Your task to perform on an android device: see sites visited before in the chrome app Image 0: 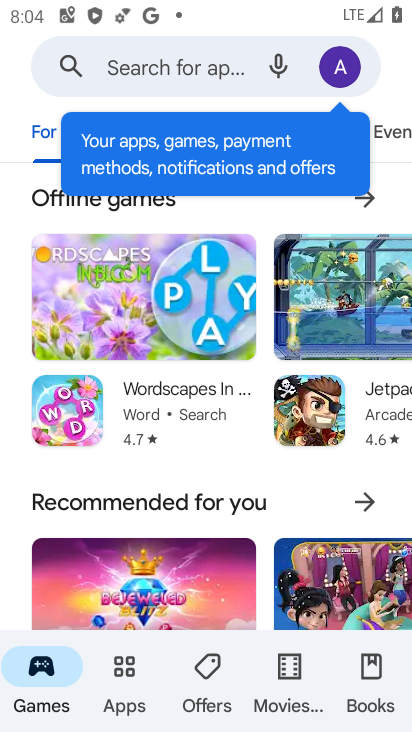
Step 0: press home button
Your task to perform on an android device: see sites visited before in the chrome app Image 1: 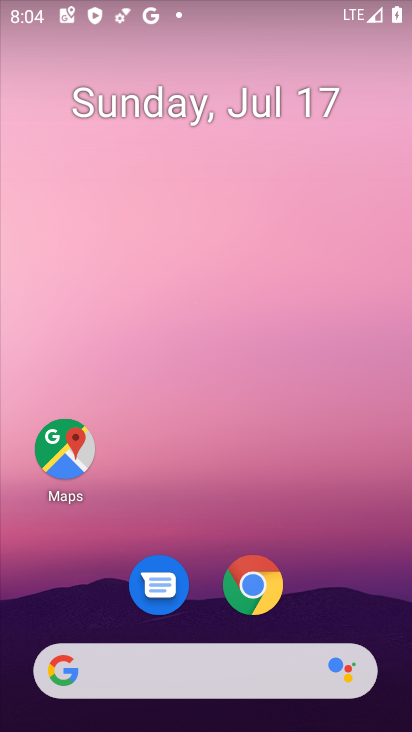
Step 1: click (269, 583)
Your task to perform on an android device: see sites visited before in the chrome app Image 2: 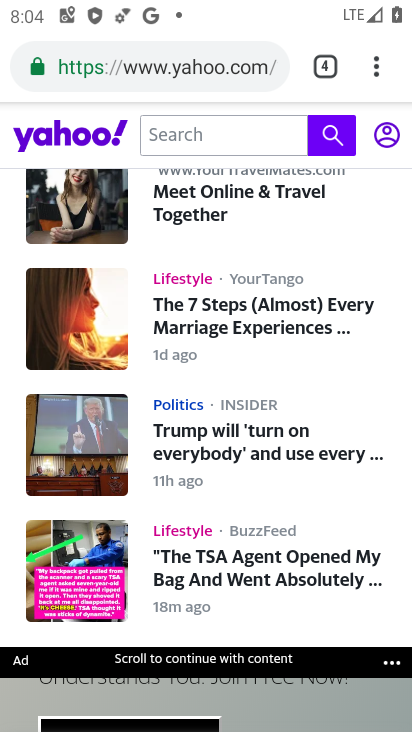
Step 2: click (376, 76)
Your task to perform on an android device: see sites visited before in the chrome app Image 3: 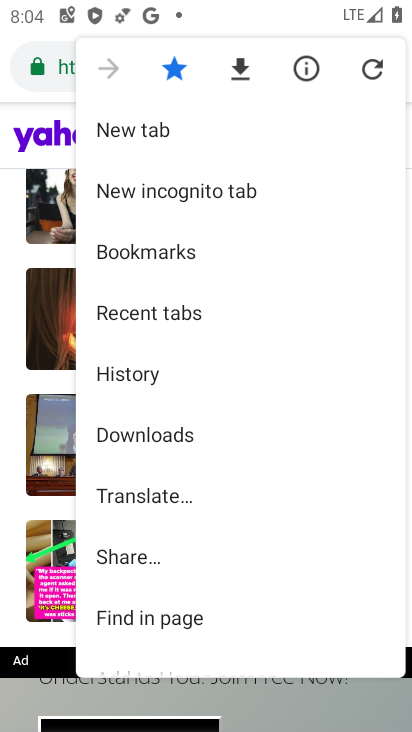
Step 3: click (135, 304)
Your task to perform on an android device: see sites visited before in the chrome app Image 4: 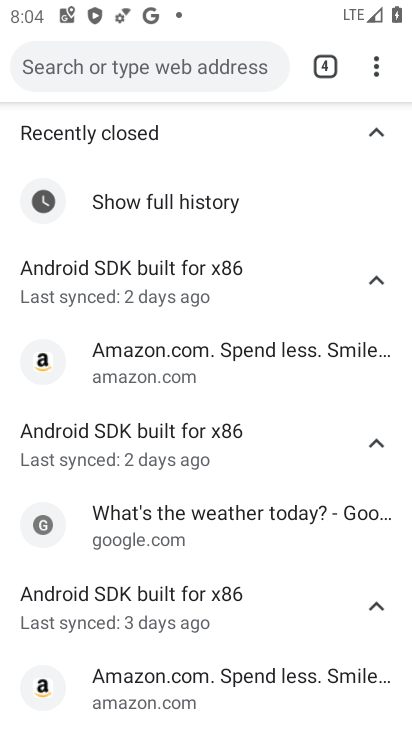
Step 4: task complete